Your task to perform on an android device: Open display settings Image 0: 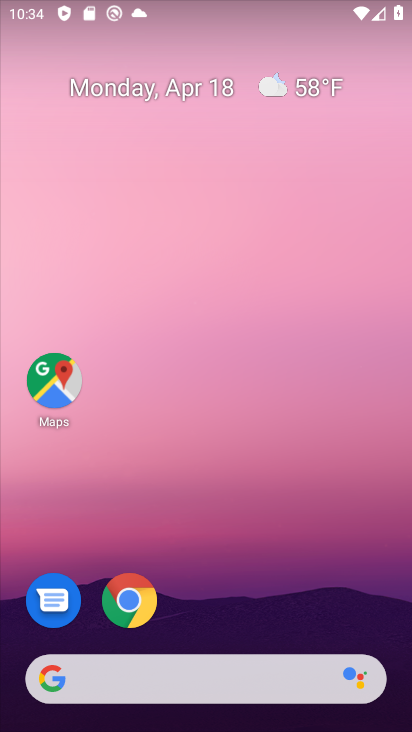
Step 0: drag from (228, 614) to (260, 3)
Your task to perform on an android device: Open display settings Image 1: 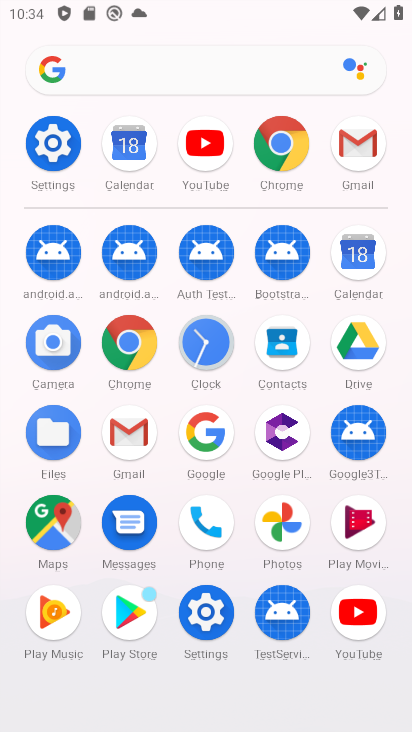
Step 1: click (58, 147)
Your task to perform on an android device: Open display settings Image 2: 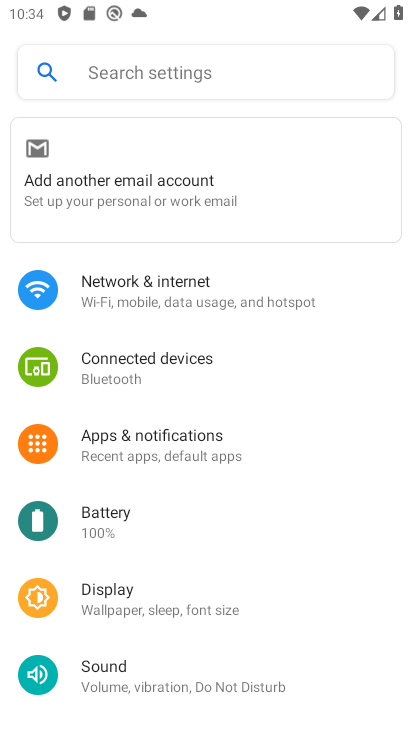
Step 2: drag from (200, 545) to (199, 278)
Your task to perform on an android device: Open display settings Image 3: 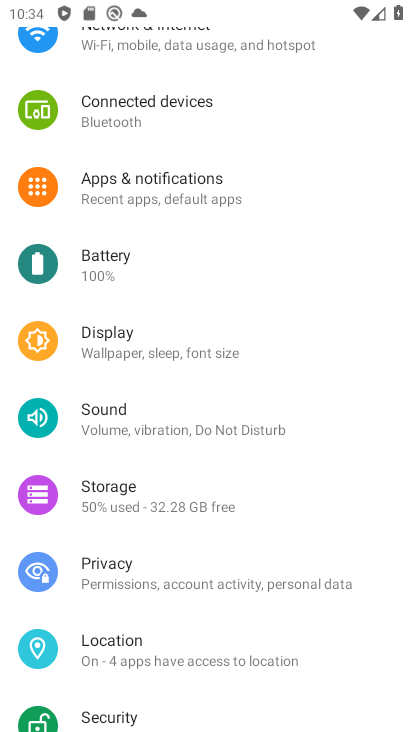
Step 3: click (104, 330)
Your task to perform on an android device: Open display settings Image 4: 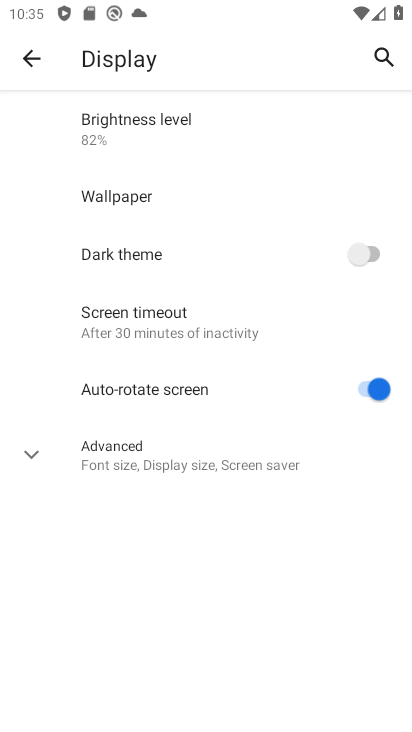
Step 4: task complete